Your task to perform on an android device: Go to accessibility settings Image 0: 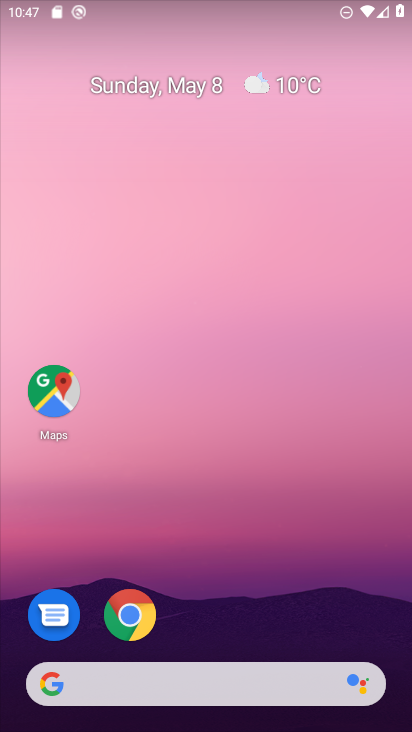
Step 0: drag from (245, 607) to (324, 116)
Your task to perform on an android device: Go to accessibility settings Image 1: 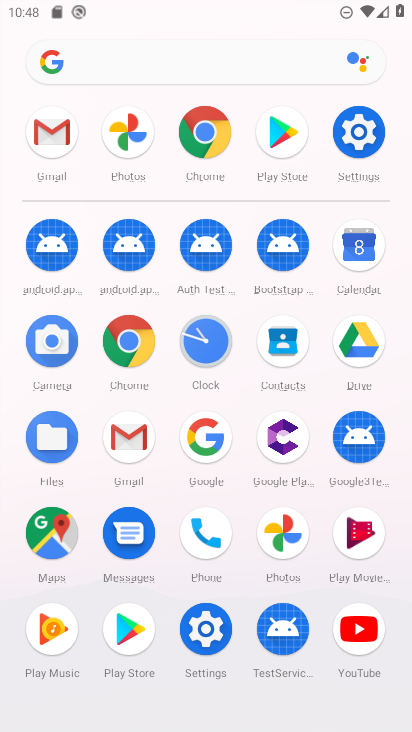
Step 1: click (348, 135)
Your task to perform on an android device: Go to accessibility settings Image 2: 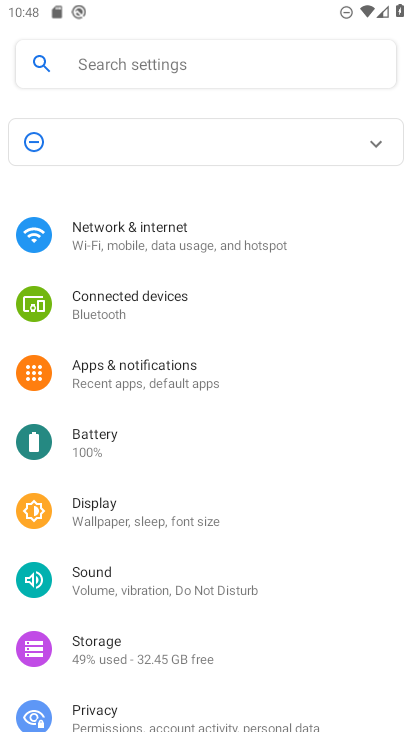
Step 2: drag from (305, 597) to (344, 40)
Your task to perform on an android device: Go to accessibility settings Image 3: 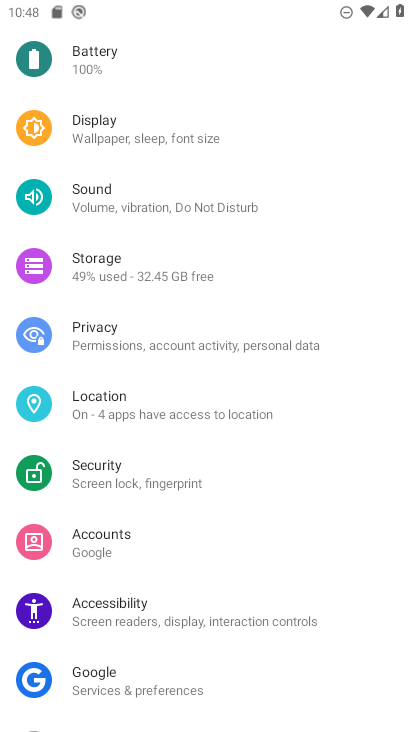
Step 3: drag from (272, 608) to (306, 311)
Your task to perform on an android device: Go to accessibility settings Image 4: 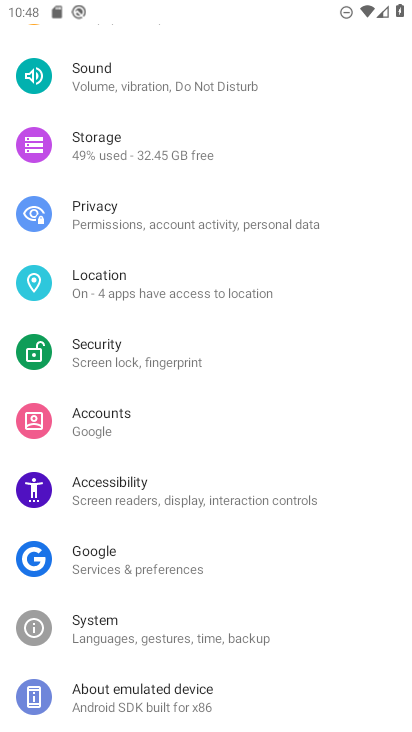
Step 4: click (213, 491)
Your task to perform on an android device: Go to accessibility settings Image 5: 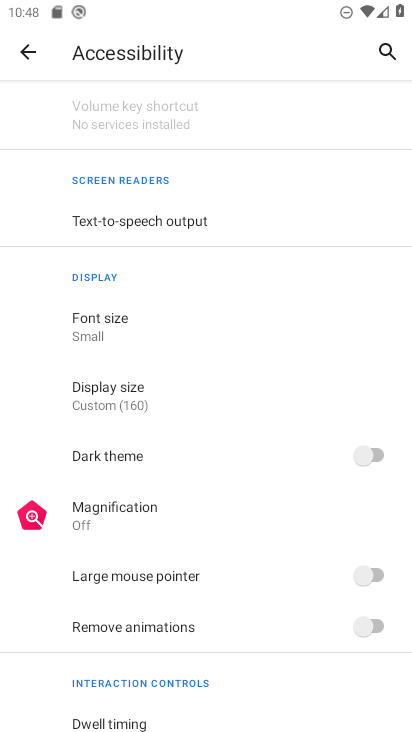
Step 5: task complete